Your task to perform on an android device: change alarm snooze length Image 0: 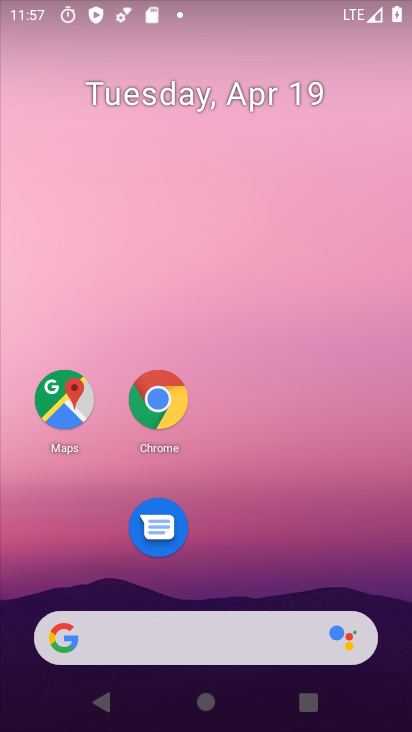
Step 0: drag from (271, 668) to (176, 160)
Your task to perform on an android device: change alarm snooze length Image 1: 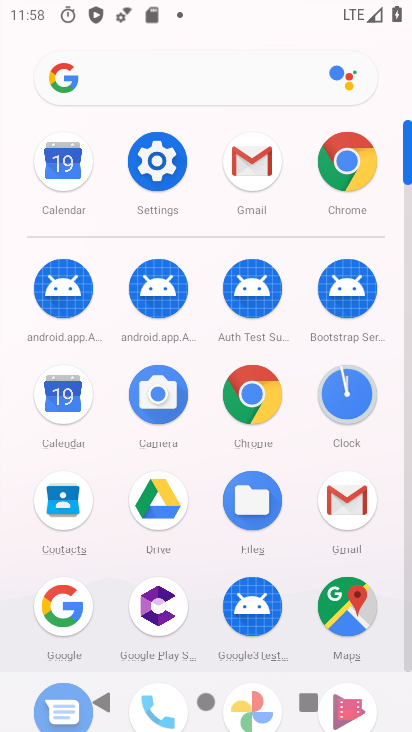
Step 1: click (342, 392)
Your task to perform on an android device: change alarm snooze length Image 2: 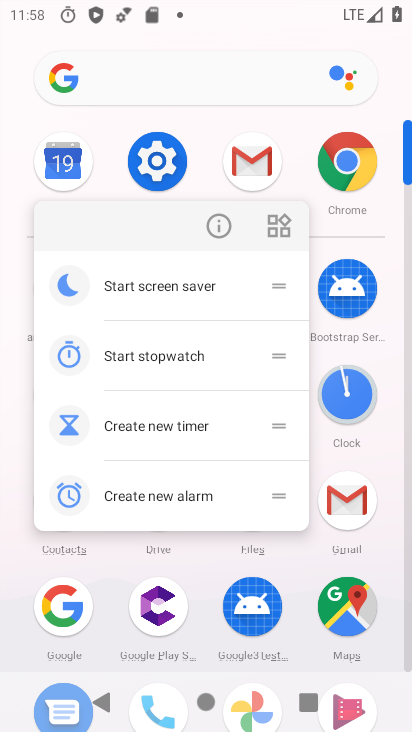
Step 2: click (341, 398)
Your task to perform on an android device: change alarm snooze length Image 3: 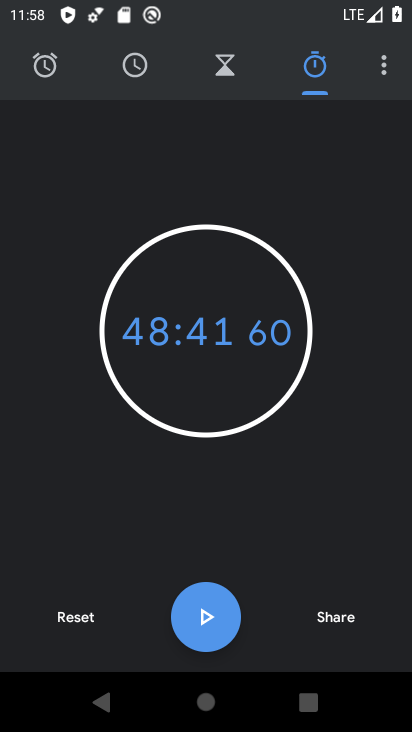
Step 3: click (381, 67)
Your task to perform on an android device: change alarm snooze length Image 4: 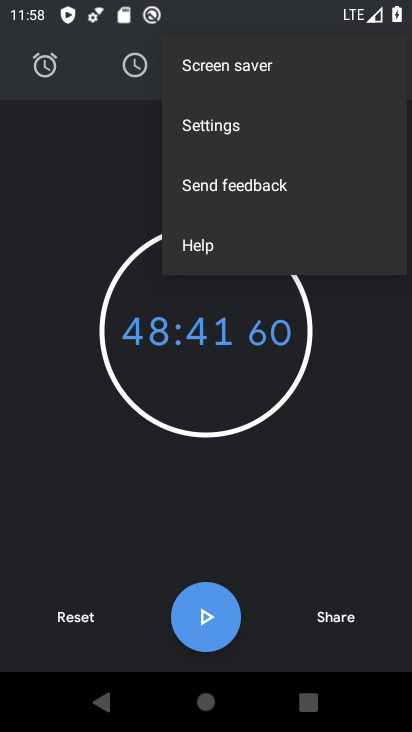
Step 4: click (241, 121)
Your task to perform on an android device: change alarm snooze length Image 5: 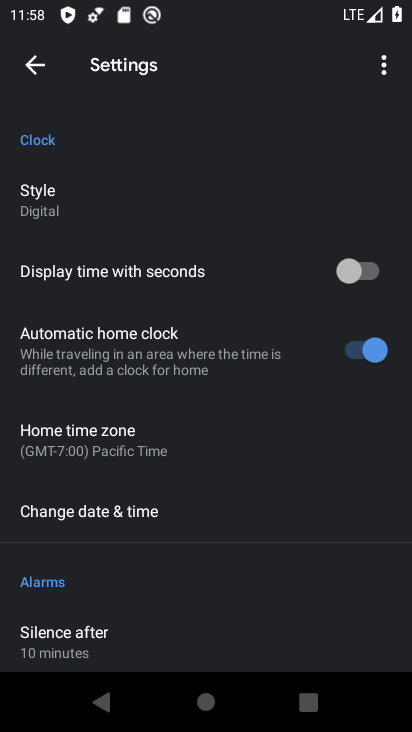
Step 5: drag from (171, 539) to (195, 348)
Your task to perform on an android device: change alarm snooze length Image 6: 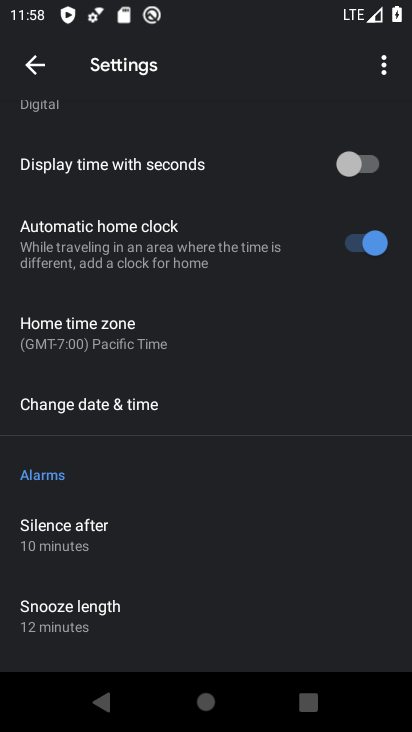
Step 6: click (85, 599)
Your task to perform on an android device: change alarm snooze length Image 7: 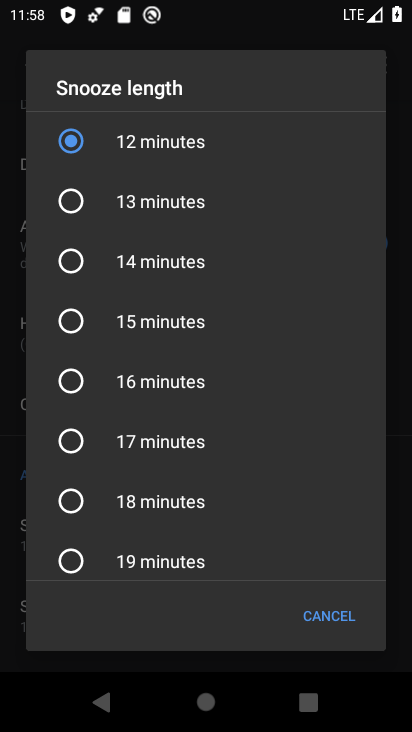
Step 7: click (139, 240)
Your task to perform on an android device: change alarm snooze length Image 8: 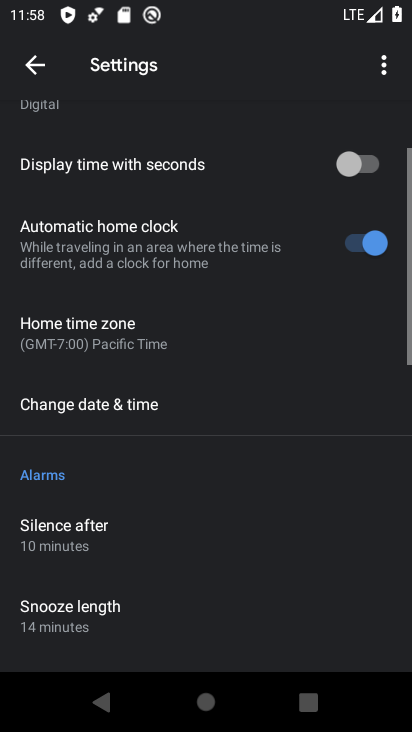
Step 8: task complete